Your task to perform on an android device: Do I have any events tomorrow? Image 0: 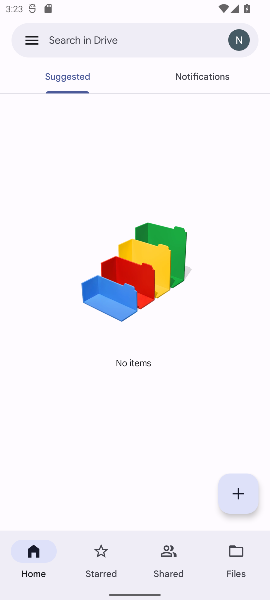
Step 0: press home button
Your task to perform on an android device: Do I have any events tomorrow? Image 1: 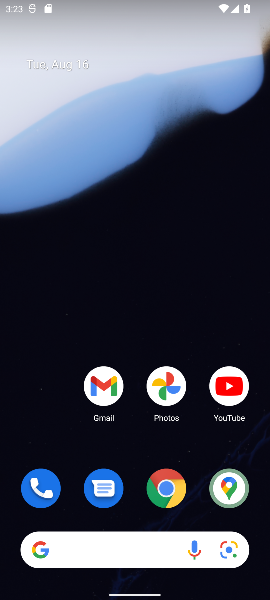
Step 1: drag from (143, 344) to (167, 25)
Your task to perform on an android device: Do I have any events tomorrow? Image 2: 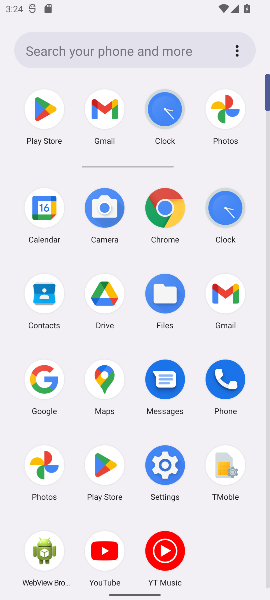
Step 2: click (163, 207)
Your task to perform on an android device: Do I have any events tomorrow? Image 3: 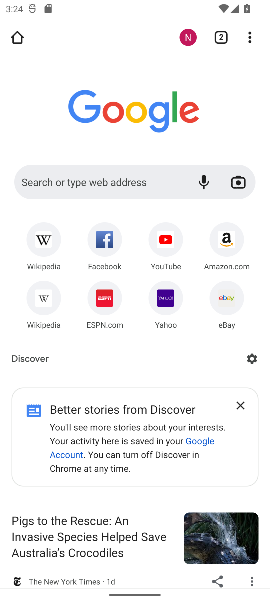
Step 3: click (127, 184)
Your task to perform on an android device: Do I have any events tomorrow? Image 4: 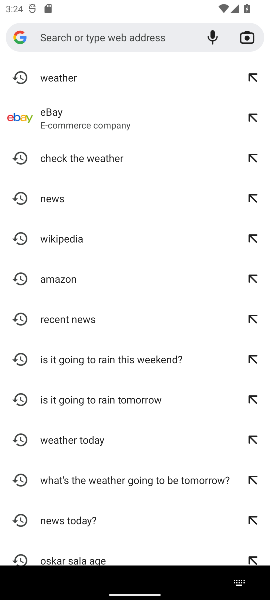
Step 4: type "Do I have any events tomorrow?"
Your task to perform on an android device: Do I have any events tomorrow? Image 5: 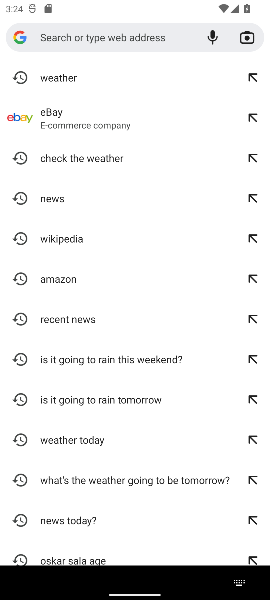
Step 5: click (113, 37)
Your task to perform on an android device: Do I have any events tomorrow? Image 6: 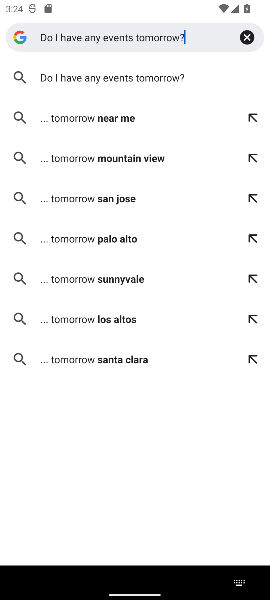
Step 6: press enter
Your task to perform on an android device: Do I have any events tomorrow? Image 7: 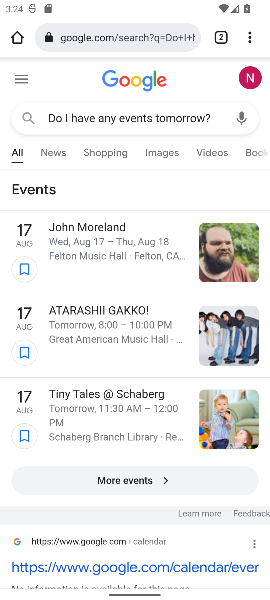
Step 7: task complete